Your task to perform on an android device: turn off sleep mode Image 0: 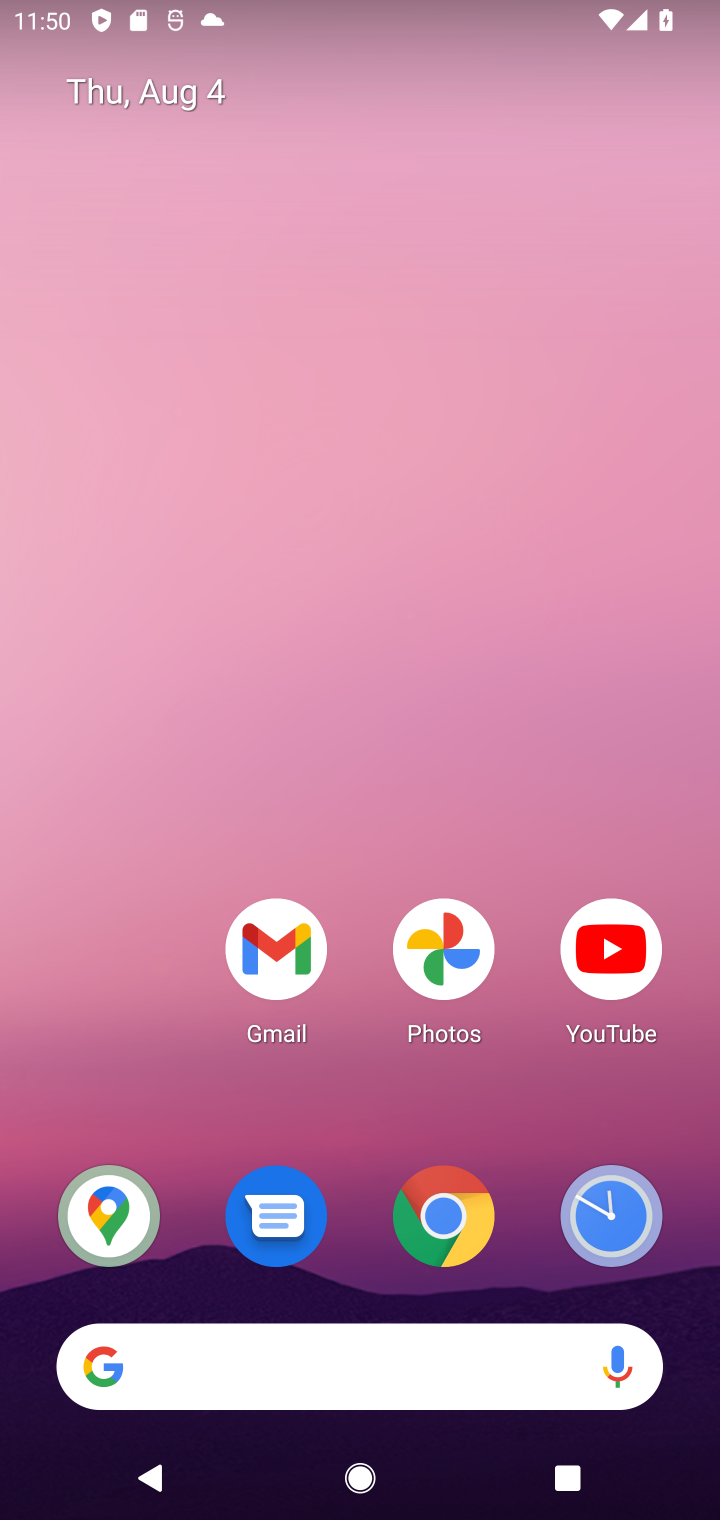
Step 0: drag from (377, 1348) to (457, 301)
Your task to perform on an android device: turn off sleep mode Image 1: 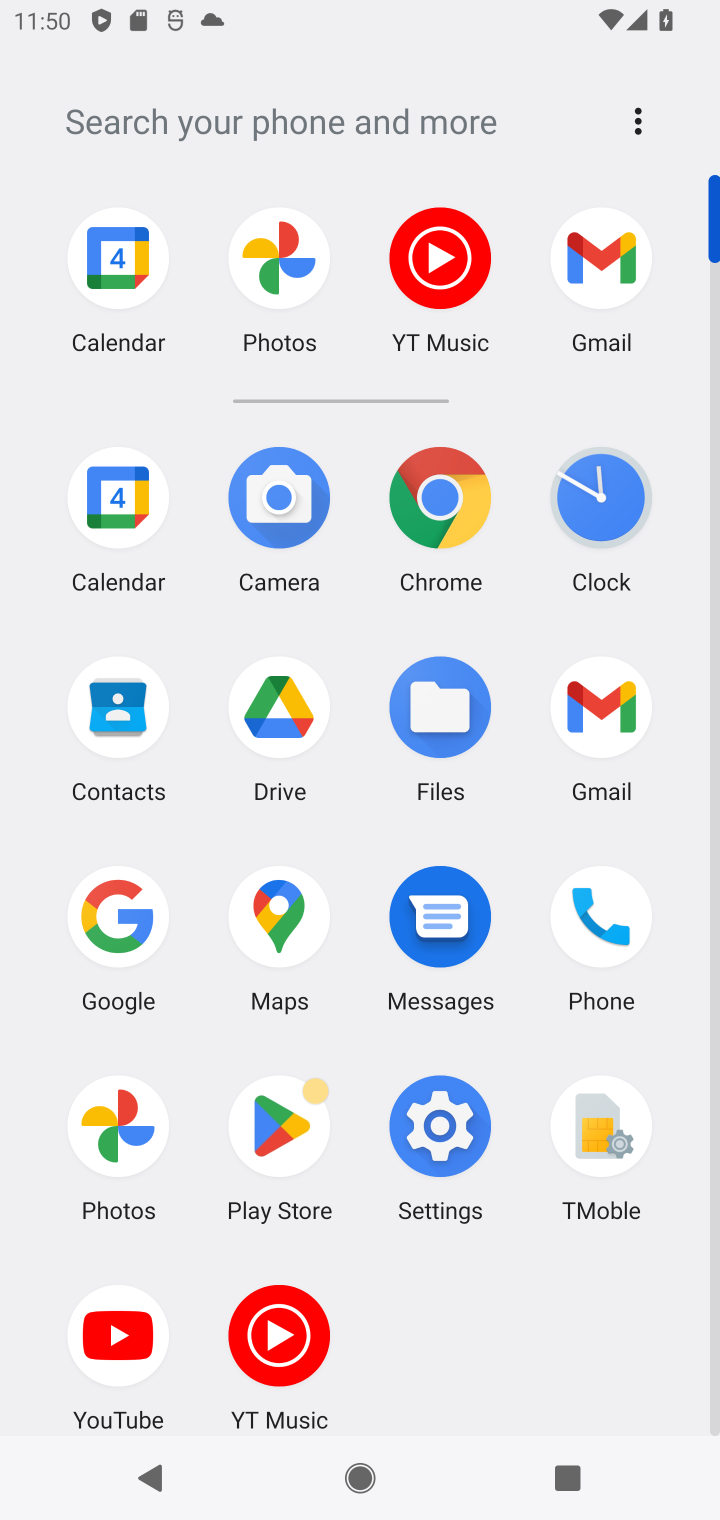
Step 1: click (436, 1129)
Your task to perform on an android device: turn off sleep mode Image 2: 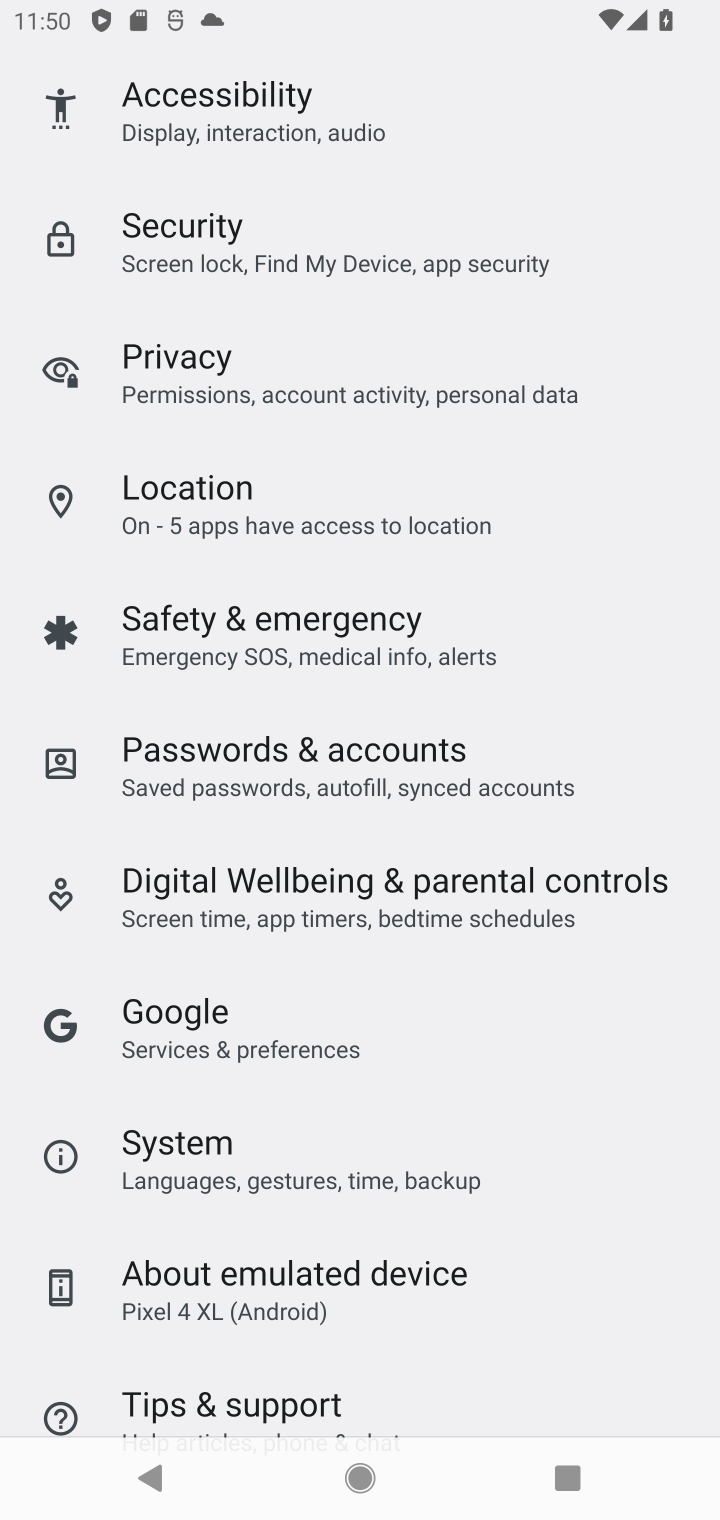
Step 2: drag from (440, 644) to (477, 984)
Your task to perform on an android device: turn off sleep mode Image 3: 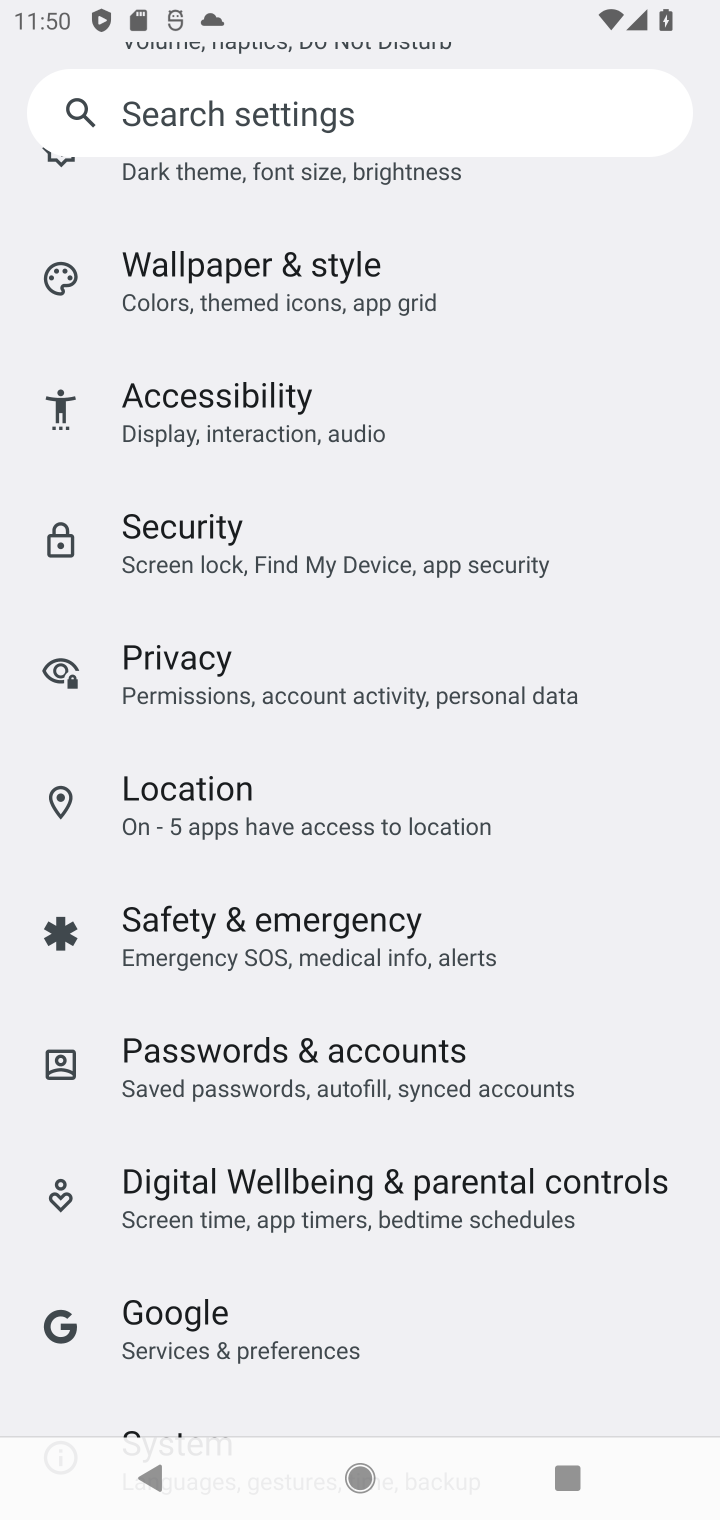
Step 3: drag from (419, 350) to (443, 644)
Your task to perform on an android device: turn off sleep mode Image 4: 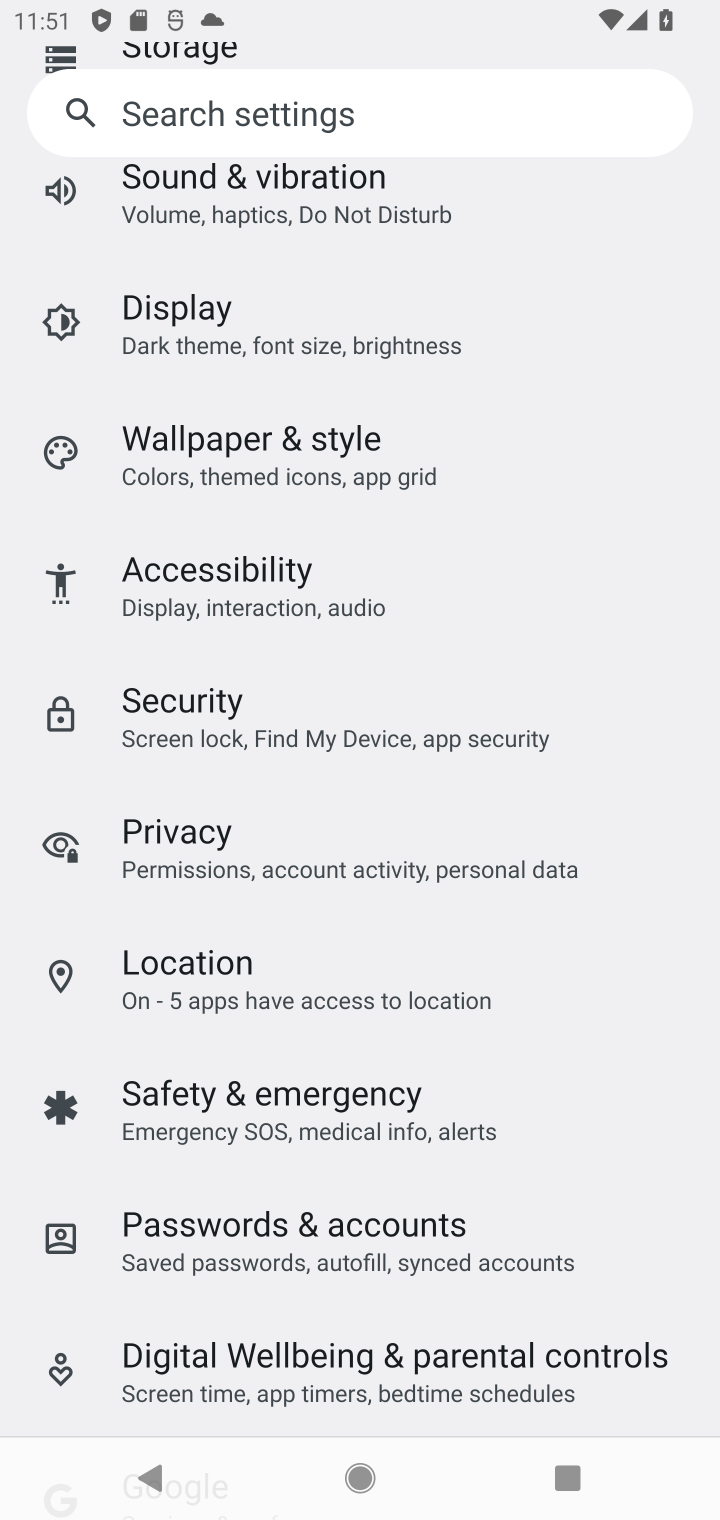
Step 4: drag from (425, 379) to (418, 650)
Your task to perform on an android device: turn off sleep mode Image 5: 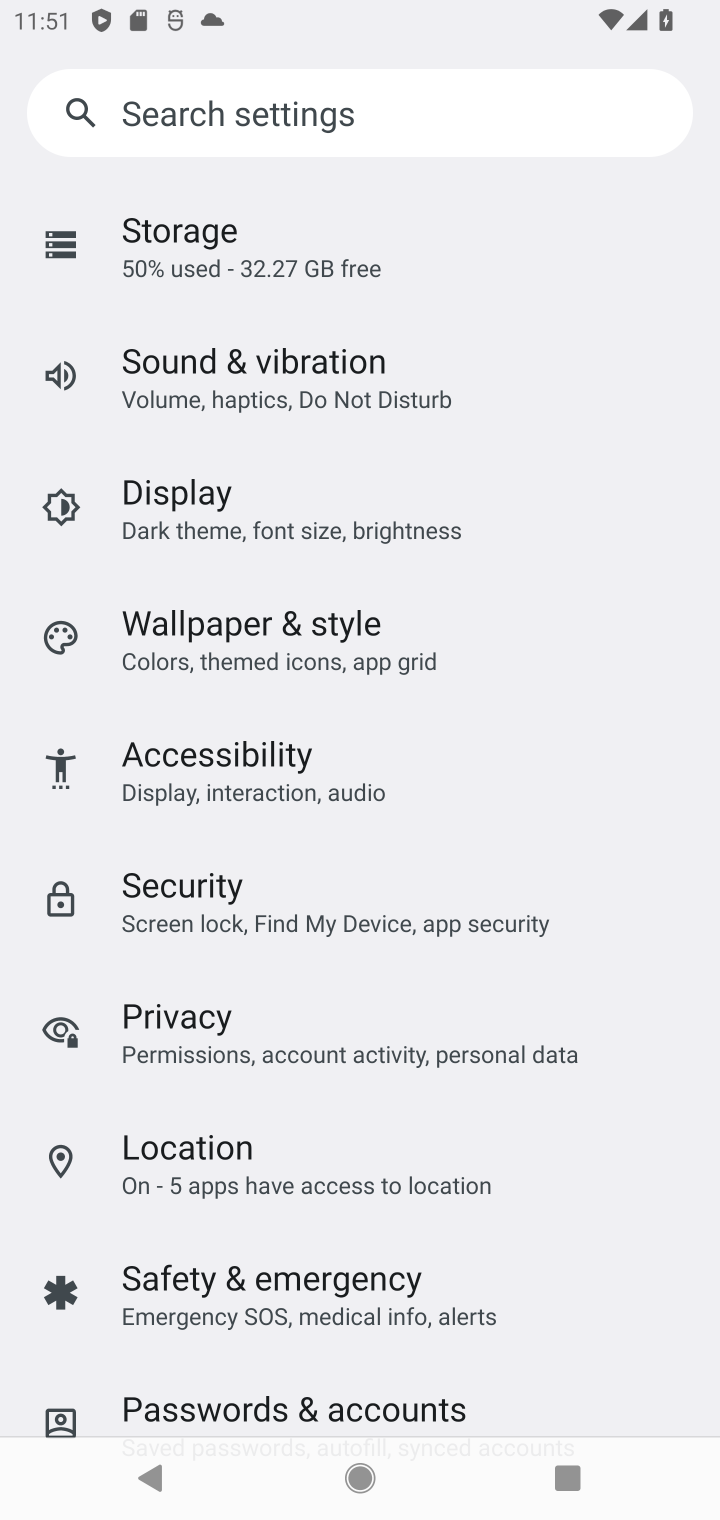
Step 5: drag from (365, 440) to (349, 747)
Your task to perform on an android device: turn off sleep mode Image 6: 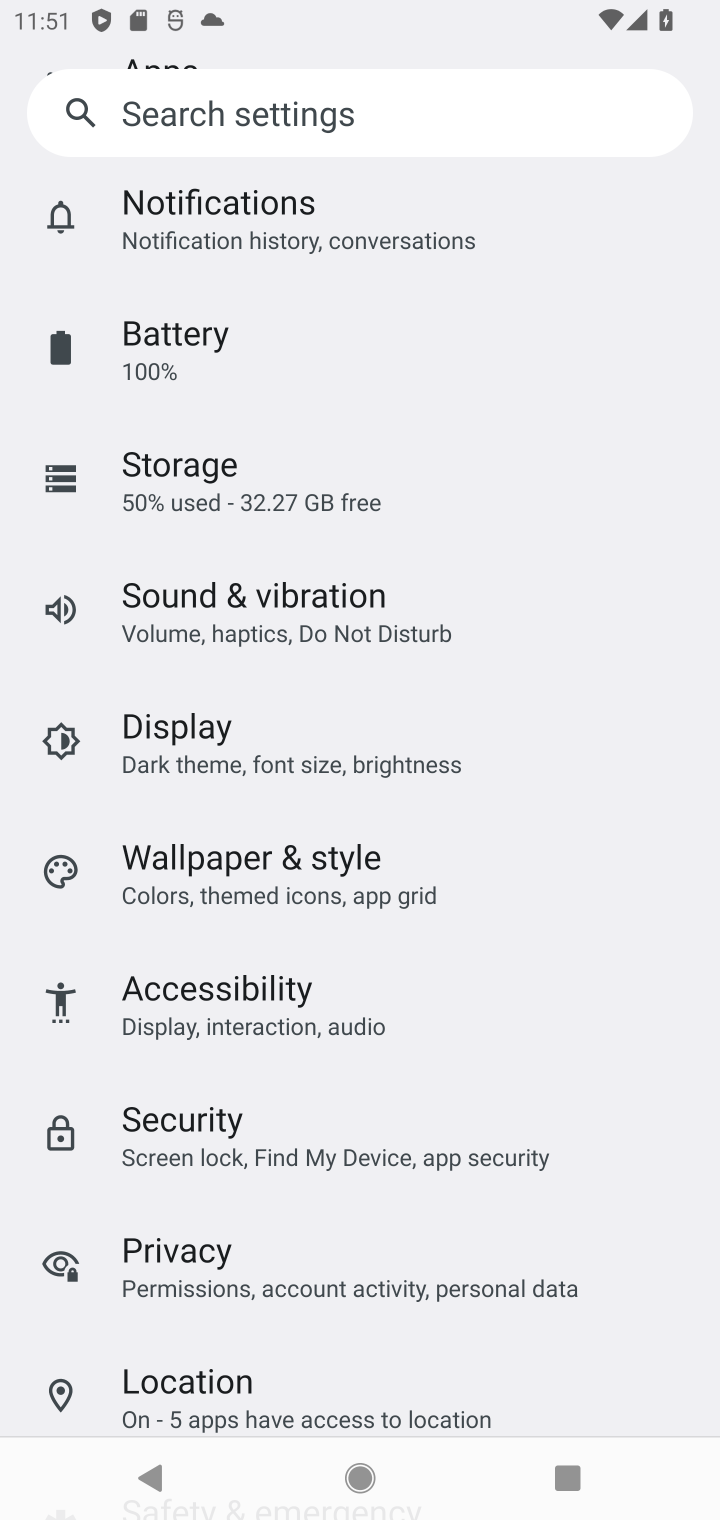
Step 6: drag from (326, 387) to (266, 805)
Your task to perform on an android device: turn off sleep mode Image 7: 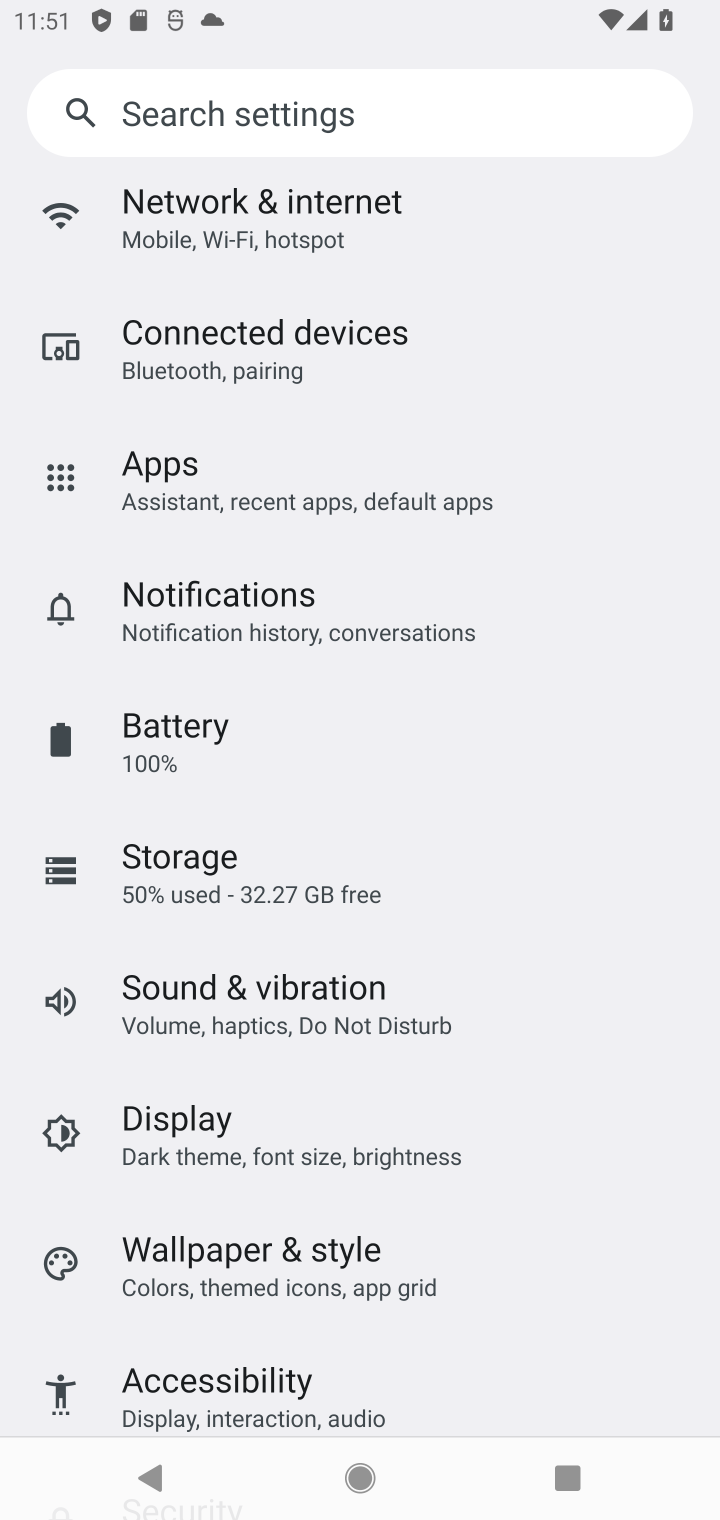
Step 7: drag from (345, 390) to (269, 845)
Your task to perform on an android device: turn off sleep mode Image 8: 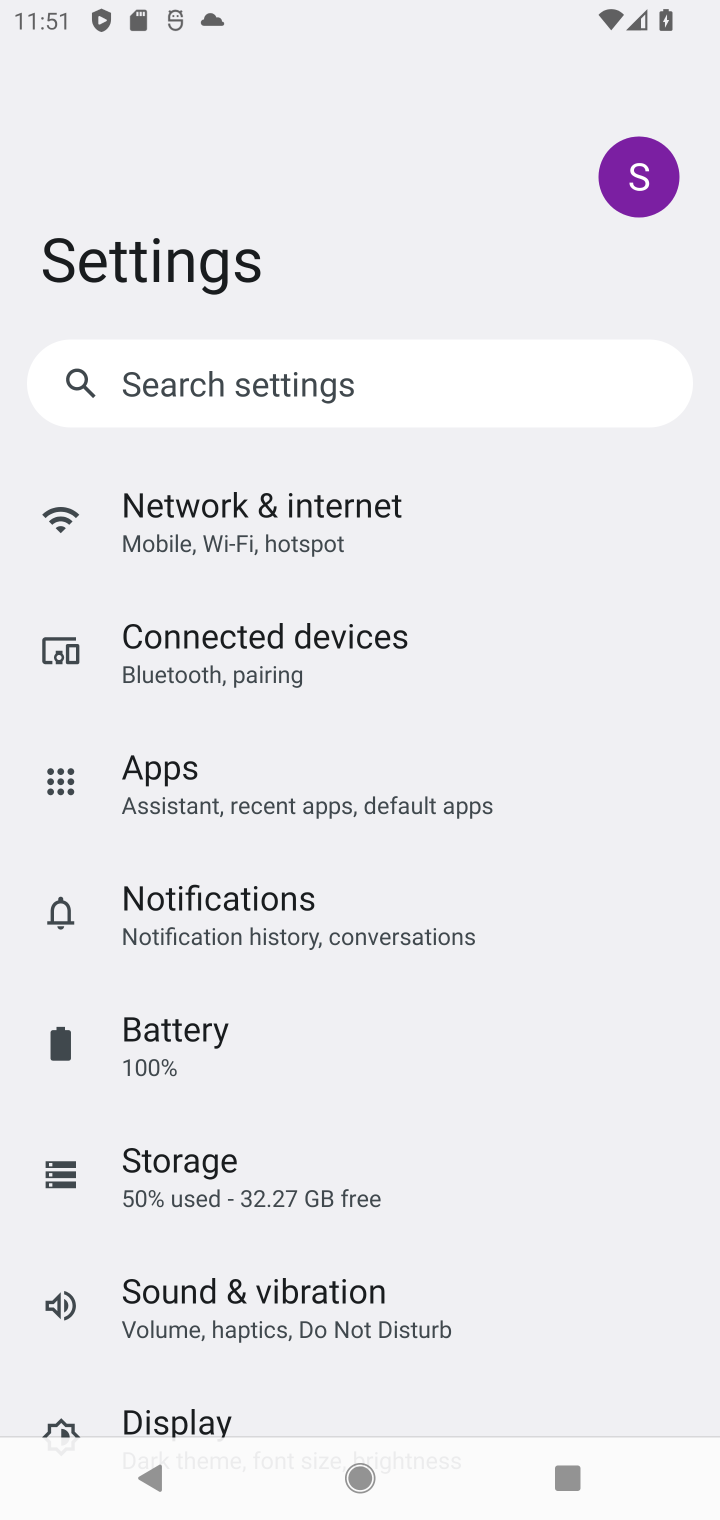
Step 8: drag from (207, 945) to (225, 731)
Your task to perform on an android device: turn off sleep mode Image 9: 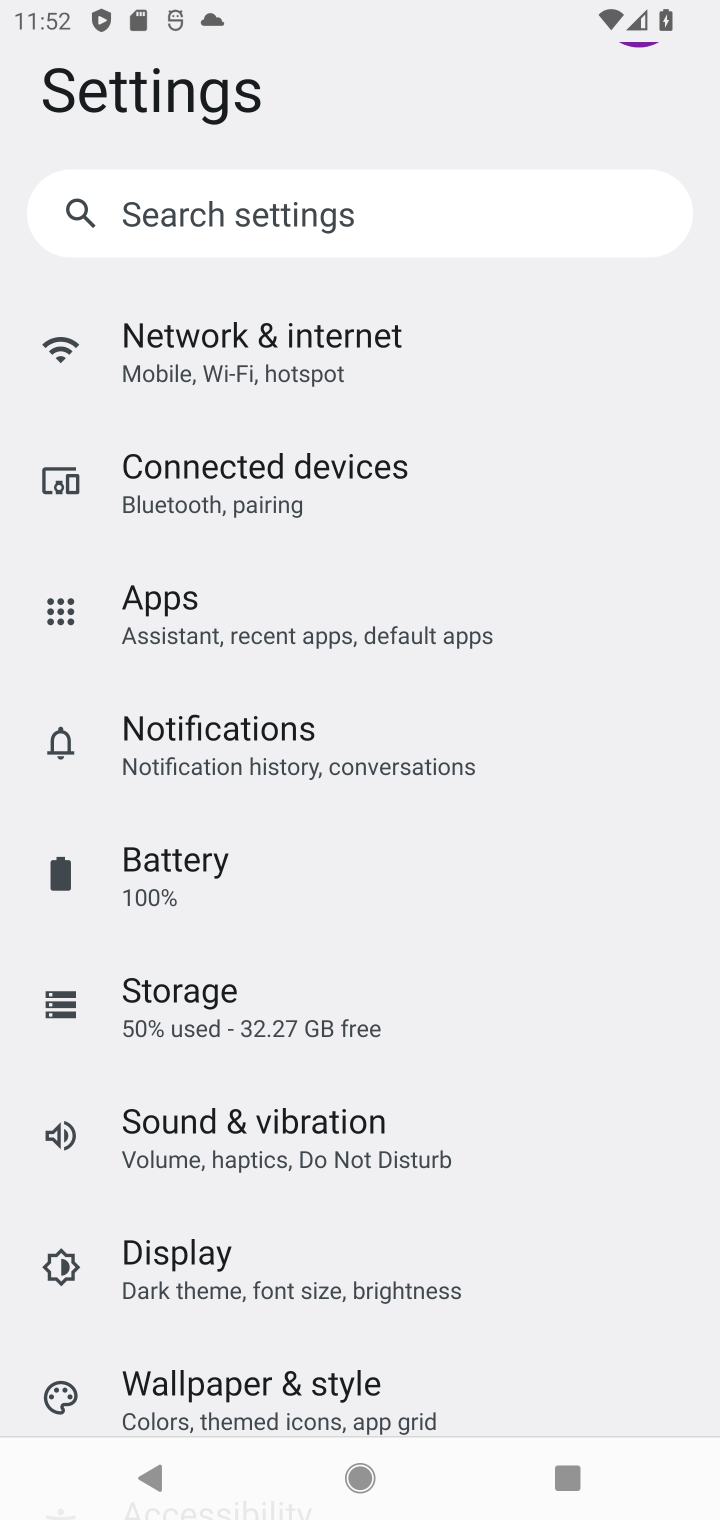
Step 9: drag from (257, 951) to (383, 690)
Your task to perform on an android device: turn off sleep mode Image 10: 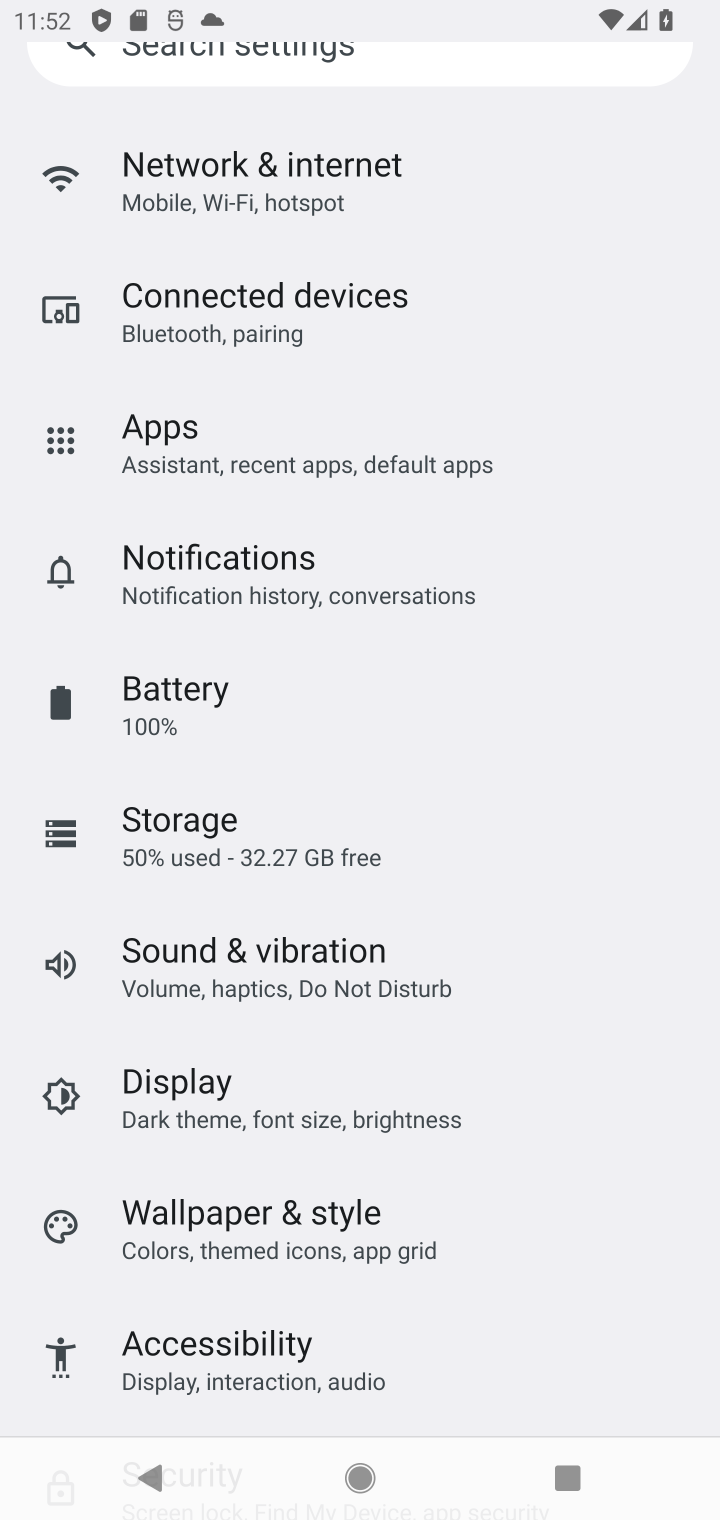
Step 10: drag from (271, 191) to (302, 656)
Your task to perform on an android device: turn off sleep mode Image 11: 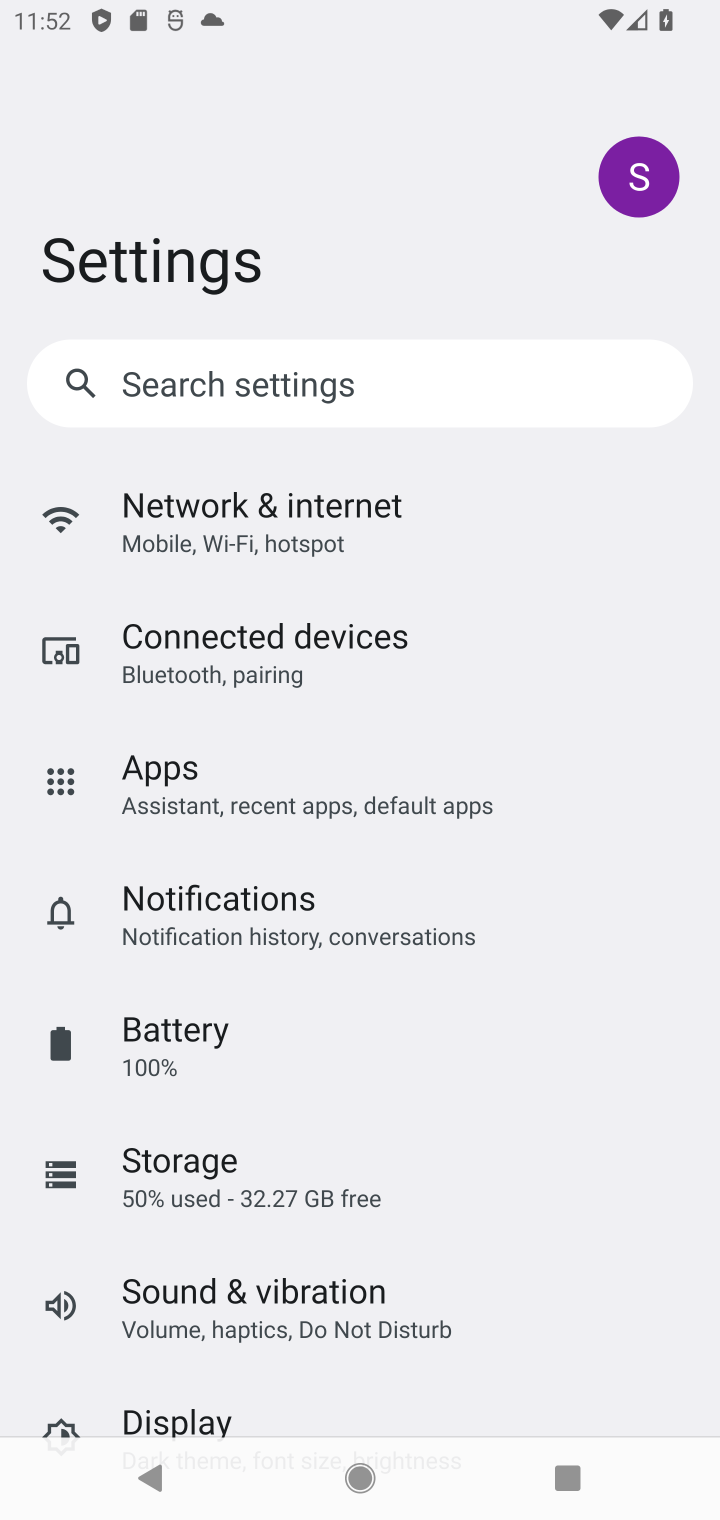
Step 11: click (278, 374)
Your task to perform on an android device: turn off sleep mode Image 12: 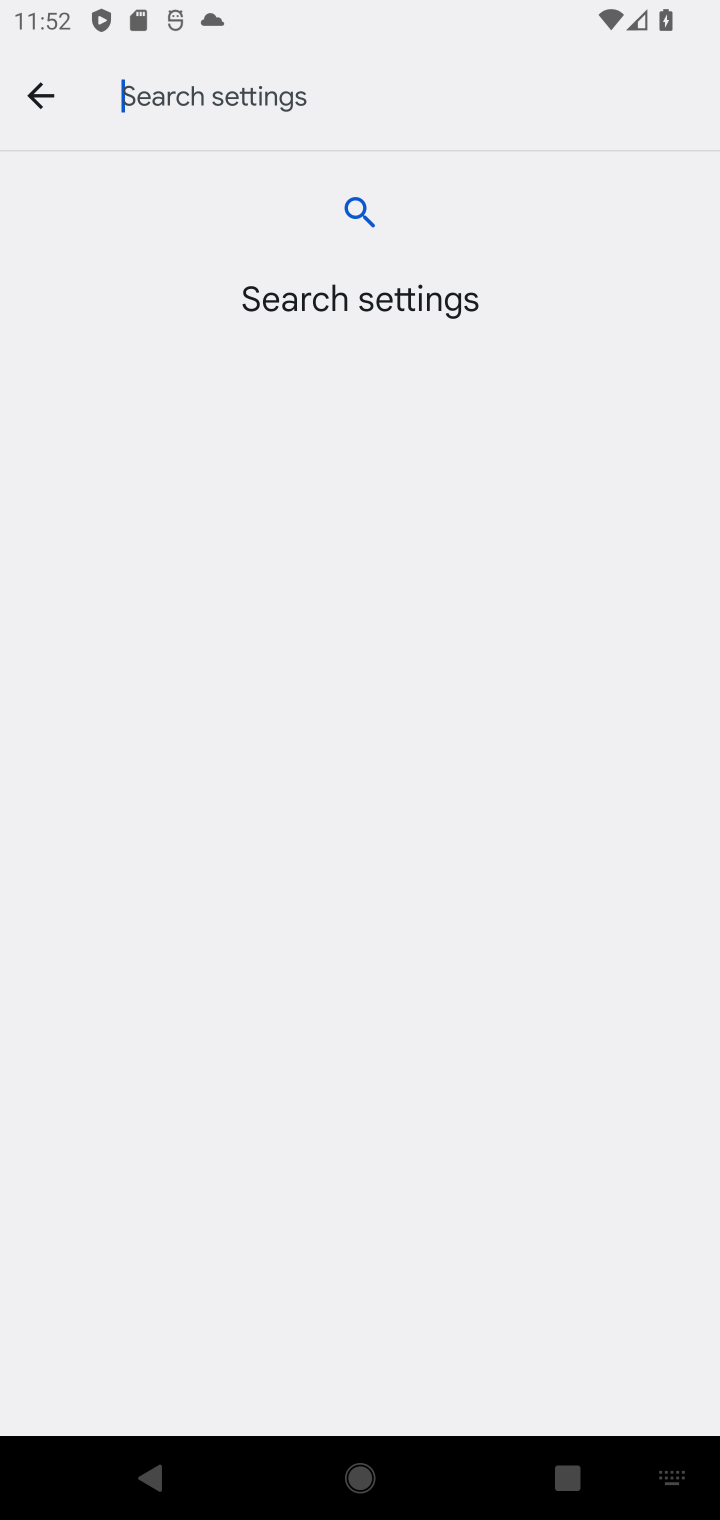
Step 12: type "sleep mode"
Your task to perform on an android device: turn off sleep mode Image 13: 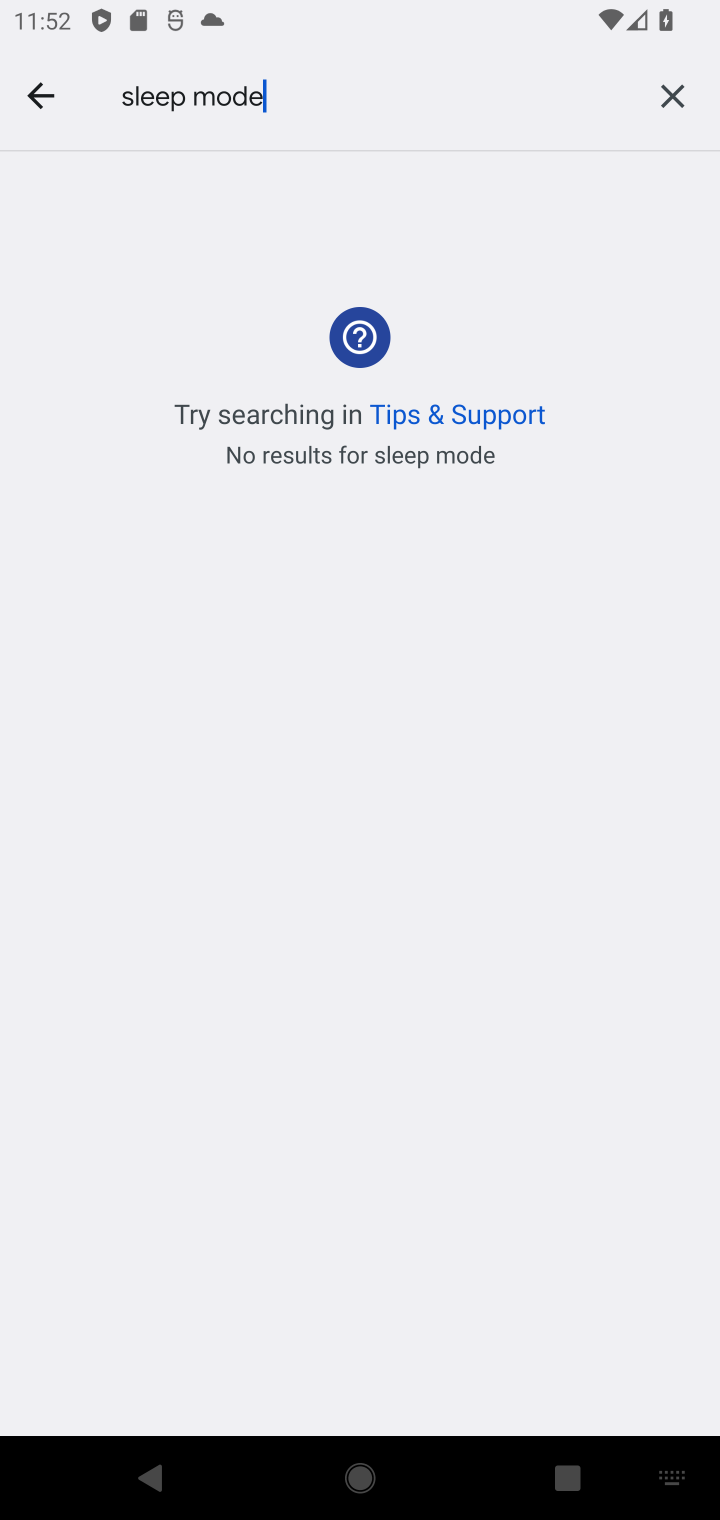
Step 13: task complete